Your task to perform on an android device: What is the recent news? Image 0: 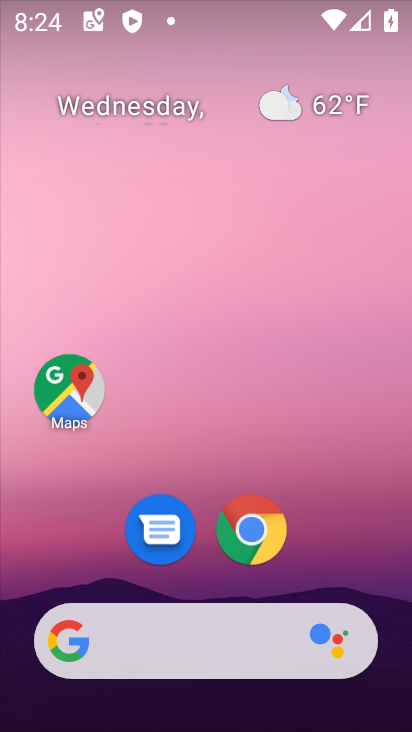
Step 0: click (251, 532)
Your task to perform on an android device: What is the recent news? Image 1: 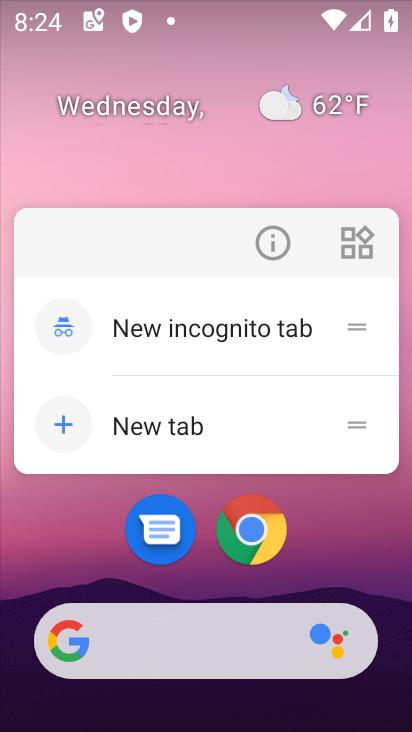
Step 1: click (265, 252)
Your task to perform on an android device: What is the recent news? Image 2: 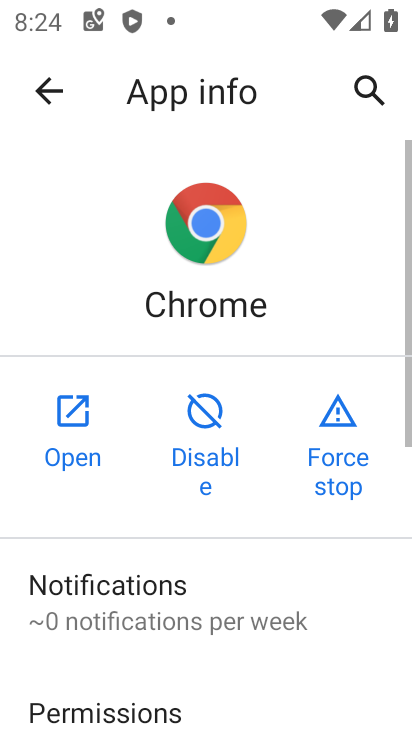
Step 2: click (50, 446)
Your task to perform on an android device: What is the recent news? Image 3: 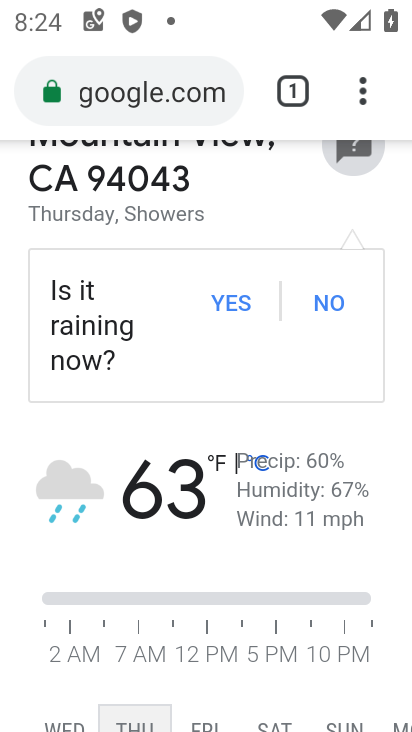
Step 3: click (126, 89)
Your task to perform on an android device: What is the recent news? Image 4: 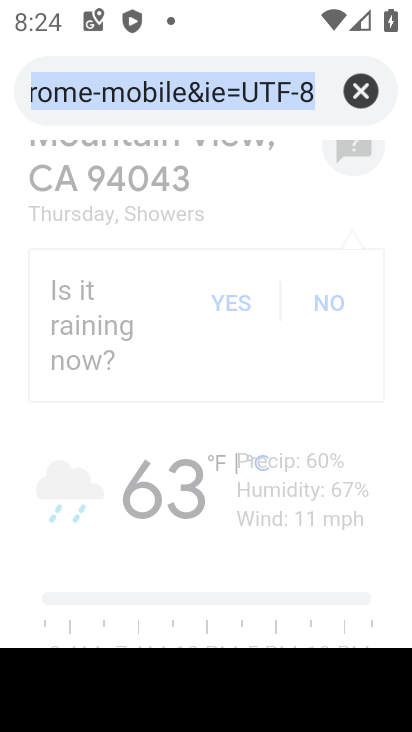
Step 4: type "what is the recent news?"
Your task to perform on an android device: What is the recent news? Image 5: 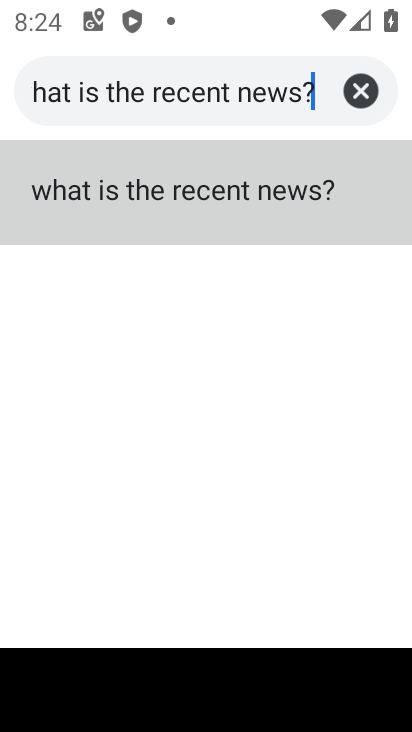
Step 5: click (248, 199)
Your task to perform on an android device: What is the recent news? Image 6: 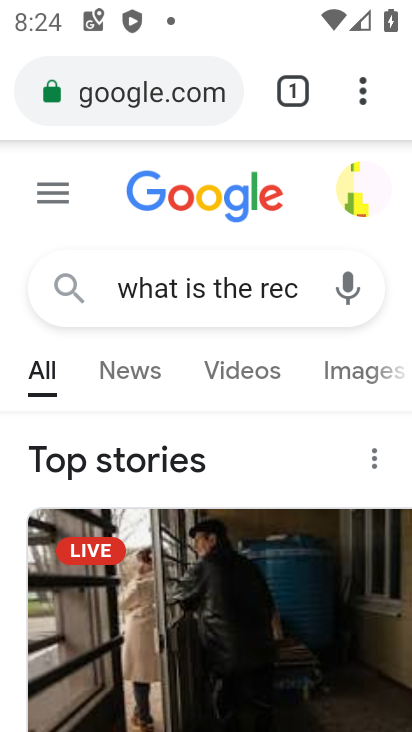
Step 6: task complete